Your task to perform on an android device: delete location history Image 0: 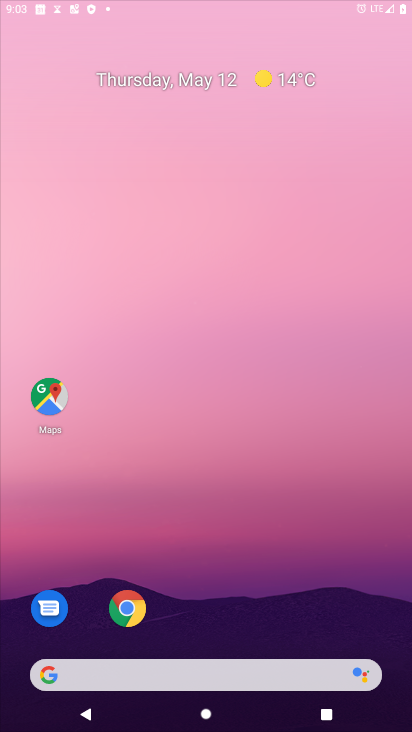
Step 0: press home button
Your task to perform on an android device: delete location history Image 1: 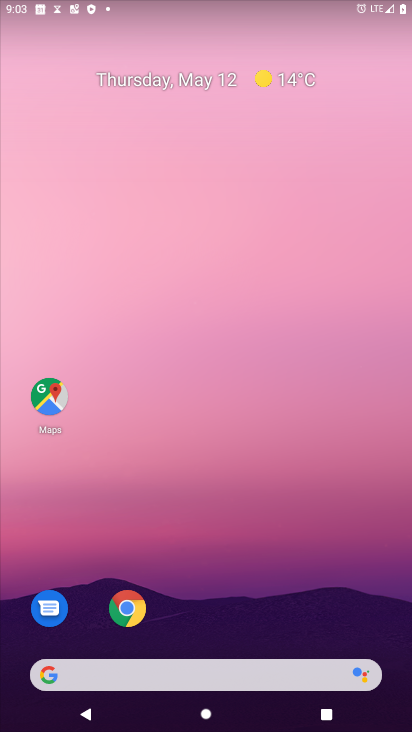
Step 1: drag from (219, 660) to (246, 306)
Your task to perform on an android device: delete location history Image 2: 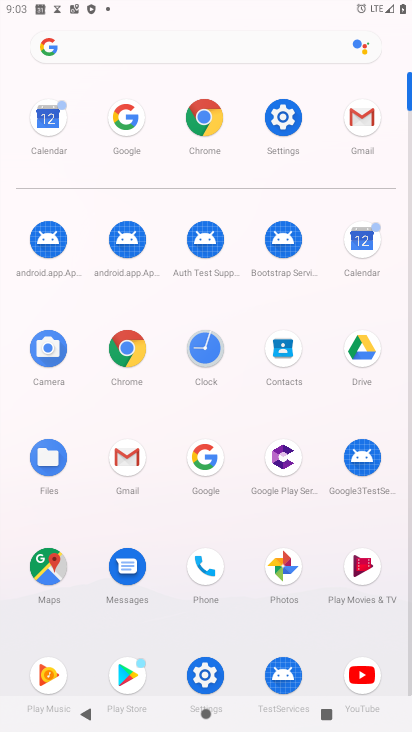
Step 2: click (283, 115)
Your task to perform on an android device: delete location history Image 3: 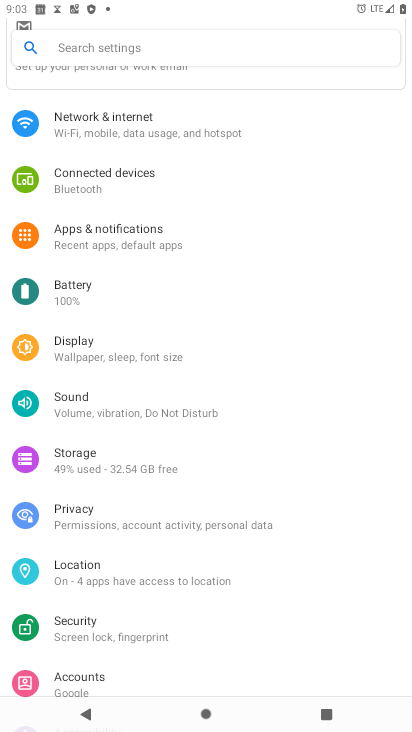
Step 3: click (76, 569)
Your task to perform on an android device: delete location history Image 4: 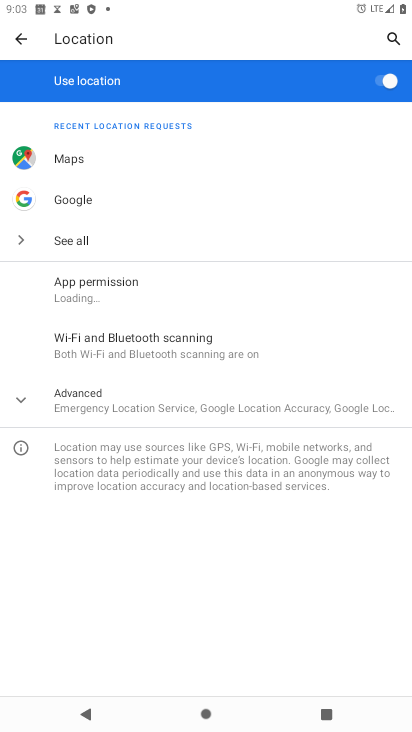
Step 4: click (96, 398)
Your task to perform on an android device: delete location history Image 5: 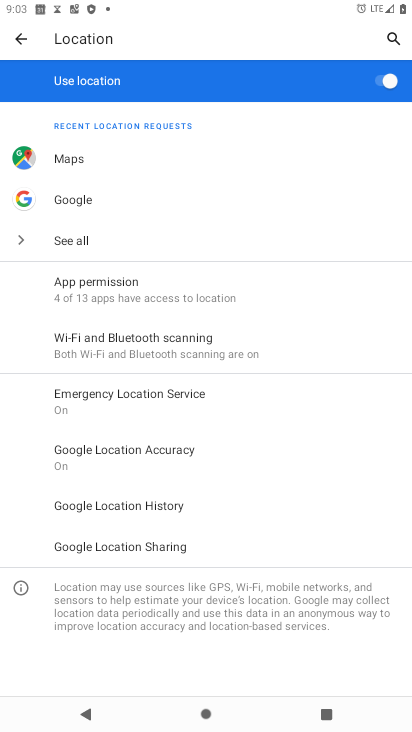
Step 5: click (148, 507)
Your task to perform on an android device: delete location history Image 6: 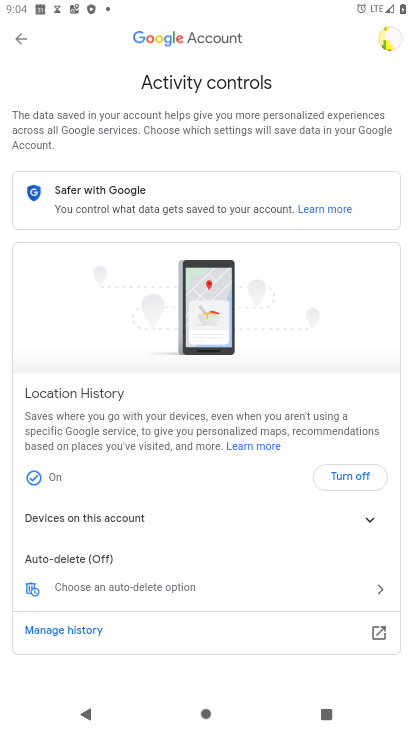
Step 6: click (151, 588)
Your task to perform on an android device: delete location history Image 7: 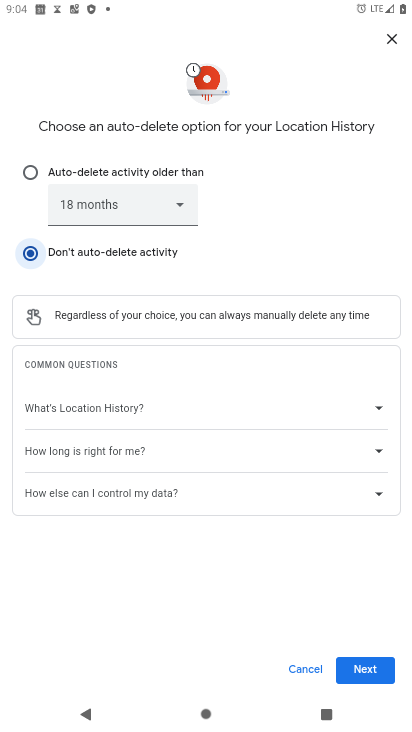
Step 7: click (380, 667)
Your task to perform on an android device: delete location history Image 8: 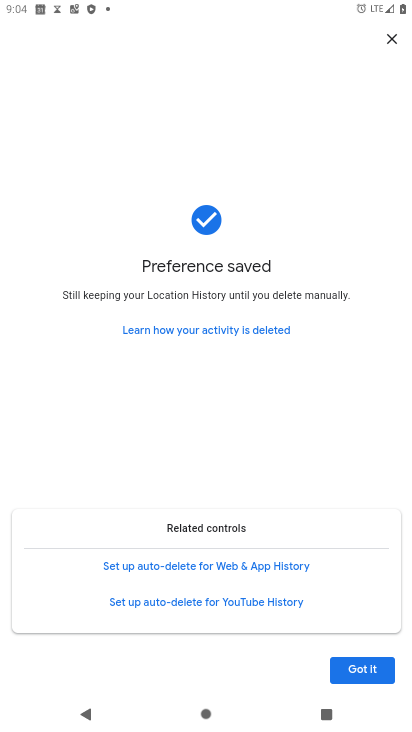
Step 8: click (380, 667)
Your task to perform on an android device: delete location history Image 9: 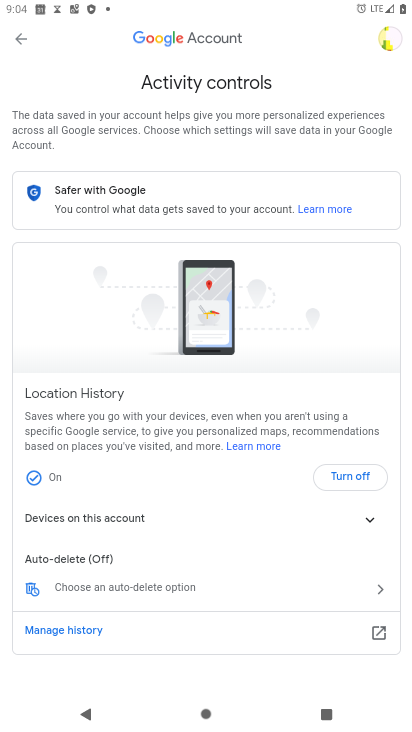
Step 9: task complete